Your task to perform on an android device: see sites visited before in the chrome app Image 0: 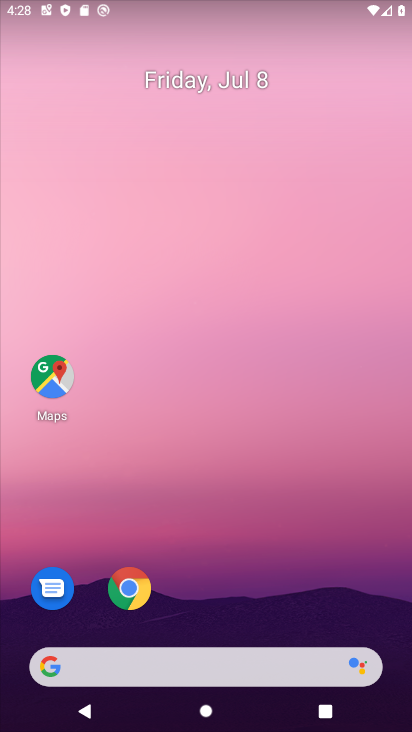
Step 0: click (142, 587)
Your task to perform on an android device: see sites visited before in the chrome app Image 1: 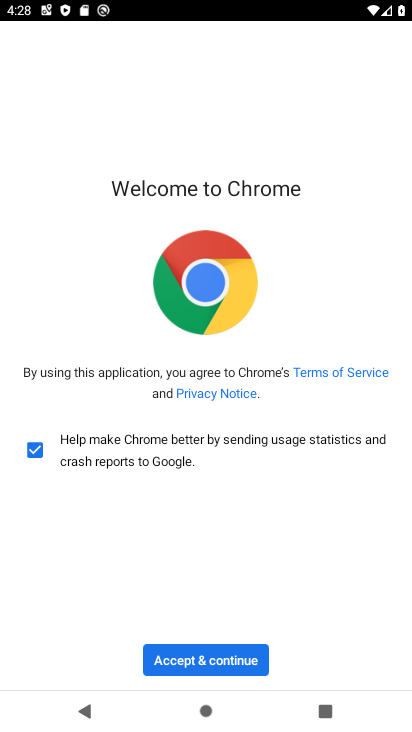
Step 1: click (228, 653)
Your task to perform on an android device: see sites visited before in the chrome app Image 2: 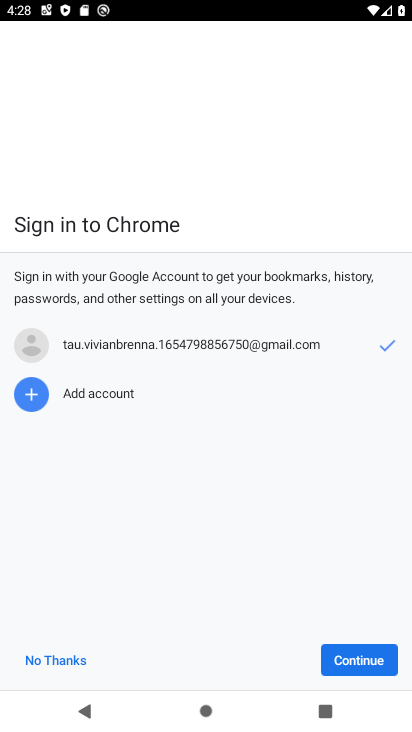
Step 2: click (332, 659)
Your task to perform on an android device: see sites visited before in the chrome app Image 3: 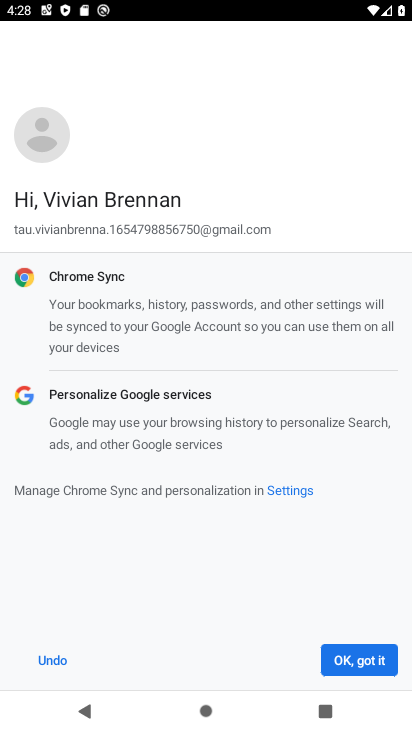
Step 3: click (379, 652)
Your task to perform on an android device: see sites visited before in the chrome app Image 4: 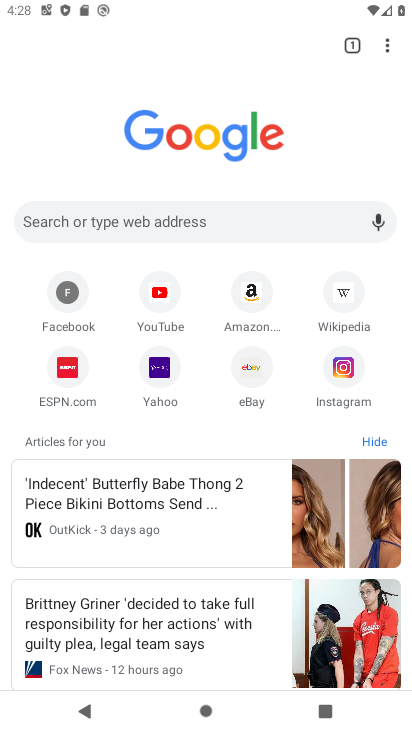
Step 4: click (389, 38)
Your task to perform on an android device: see sites visited before in the chrome app Image 5: 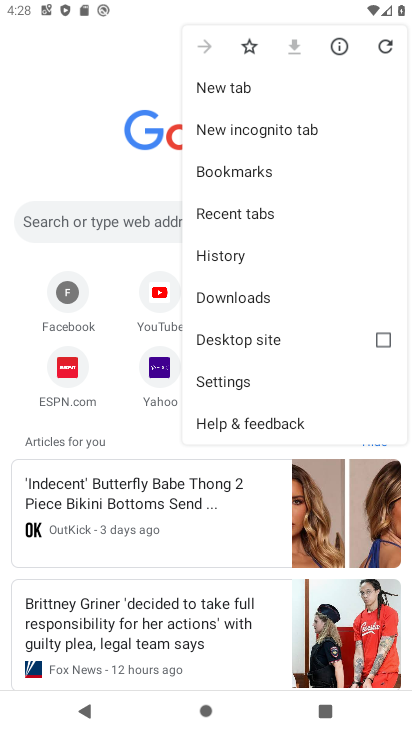
Step 5: click (224, 262)
Your task to perform on an android device: see sites visited before in the chrome app Image 6: 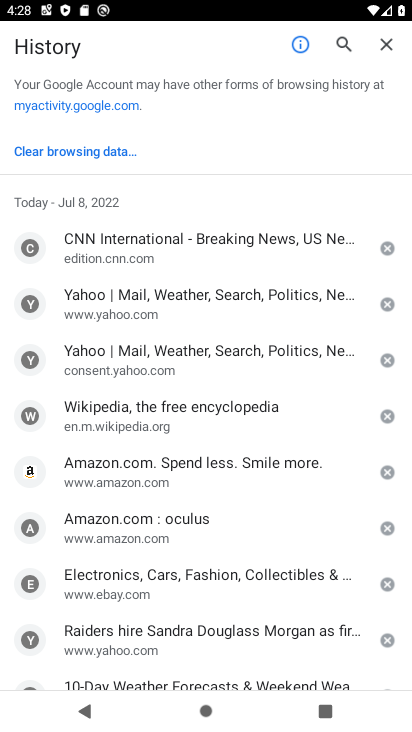
Step 6: task complete